Your task to perform on an android device: turn on translation in the chrome app Image 0: 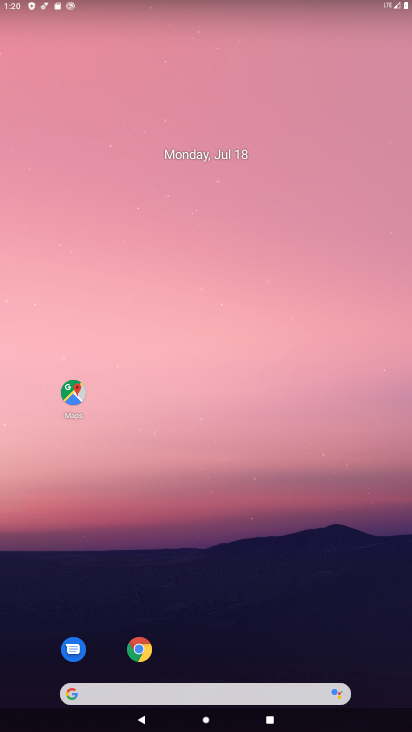
Step 0: drag from (157, 708) to (163, 306)
Your task to perform on an android device: turn on translation in the chrome app Image 1: 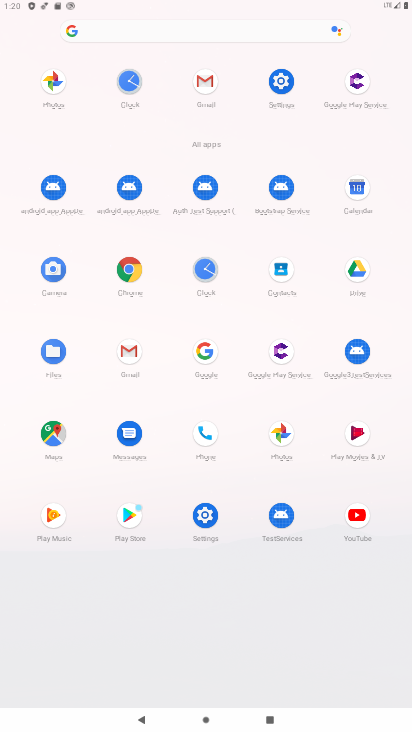
Step 1: click (125, 265)
Your task to perform on an android device: turn on translation in the chrome app Image 2: 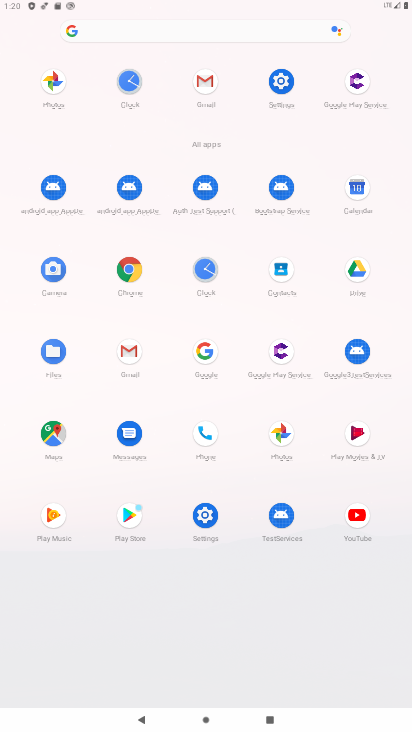
Step 2: click (125, 265)
Your task to perform on an android device: turn on translation in the chrome app Image 3: 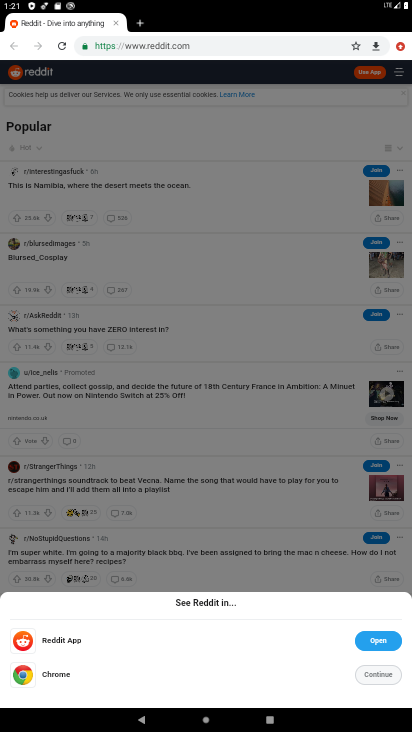
Step 3: click (399, 46)
Your task to perform on an android device: turn on translation in the chrome app Image 4: 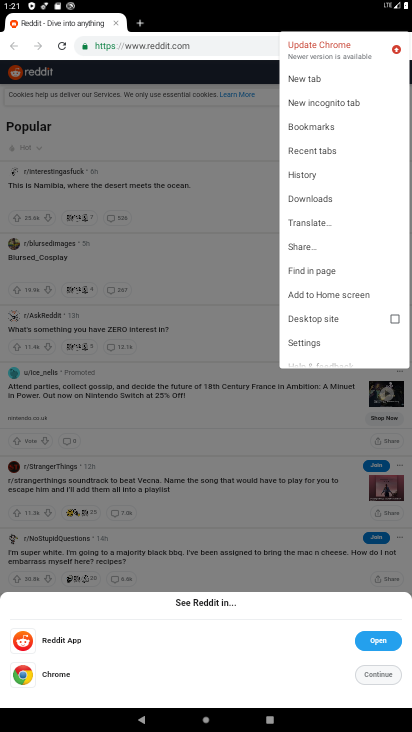
Step 4: click (307, 347)
Your task to perform on an android device: turn on translation in the chrome app Image 5: 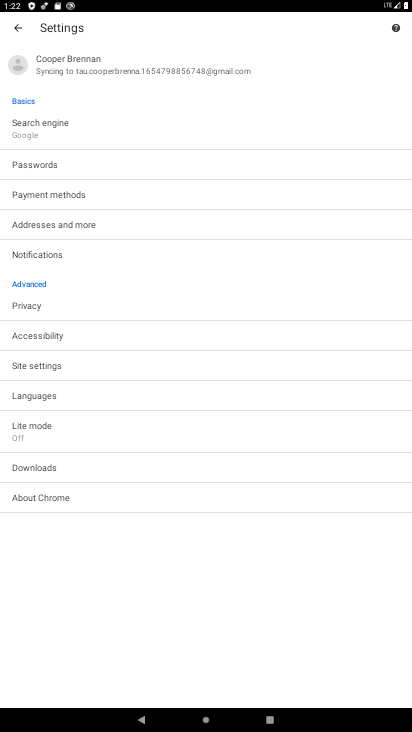
Step 5: click (64, 398)
Your task to perform on an android device: turn on translation in the chrome app Image 6: 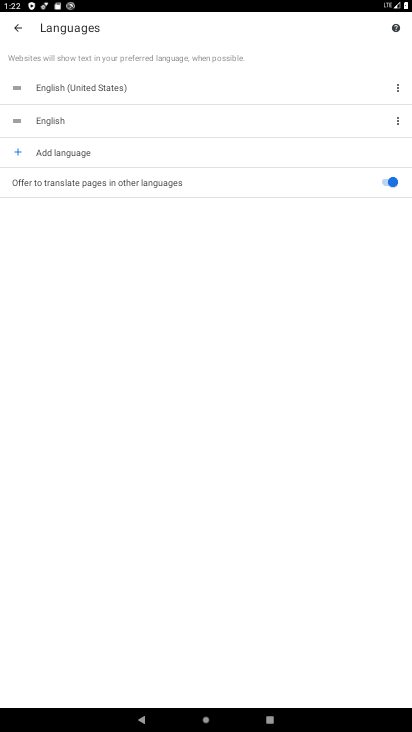
Step 6: task complete